Your task to perform on an android device: add a contact Image 0: 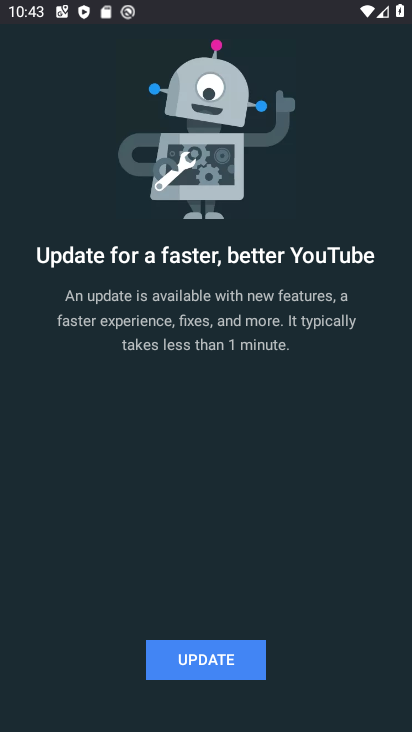
Step 0: task complete